Your task to perform on an android device: set an alarm Image 0: 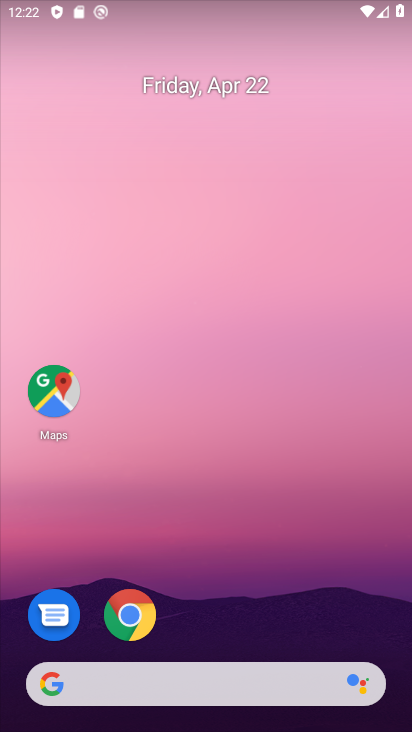
Step 0: drag from (394, 664) to (134, 726)
Your task to perform on an android device: set an alarm Image 1: 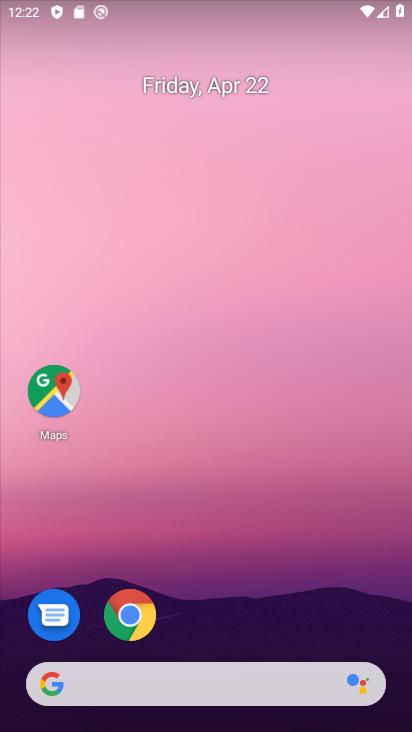
Step 1: drag from (200, 719) to (188, 22)
Your task to perform on an android device: set an alarm Image 2: 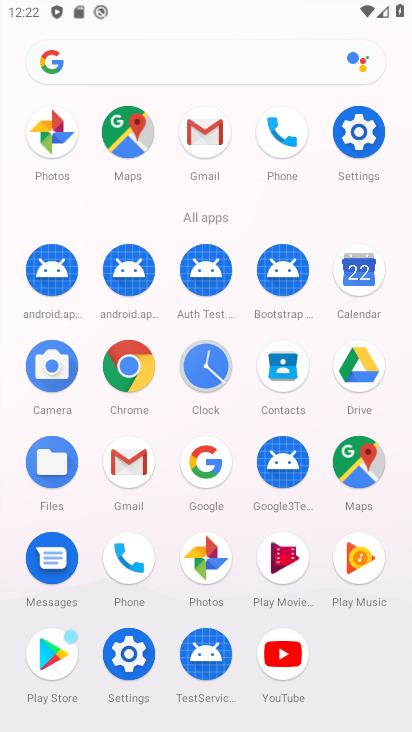
Step 2: click (219, 374)
Your task to perform on an android device: set an alarm Image 3: 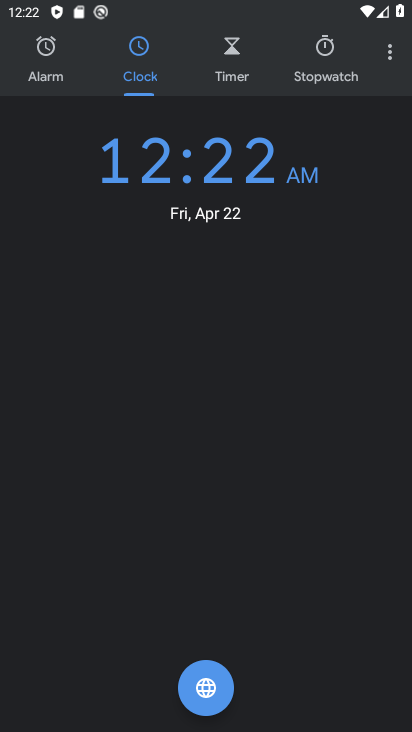
Step 3: click (54, 70)
Your task to perform on an android device: set an alarm Image 4: 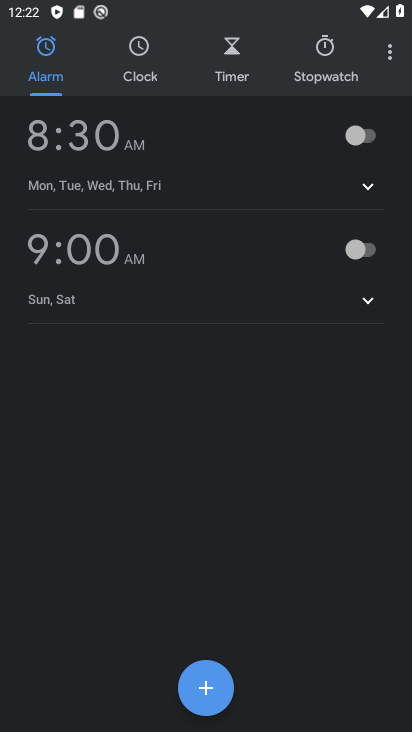
Step 4: click (210, 692)
Your task to perform on an android device: set an alarm Image 5: 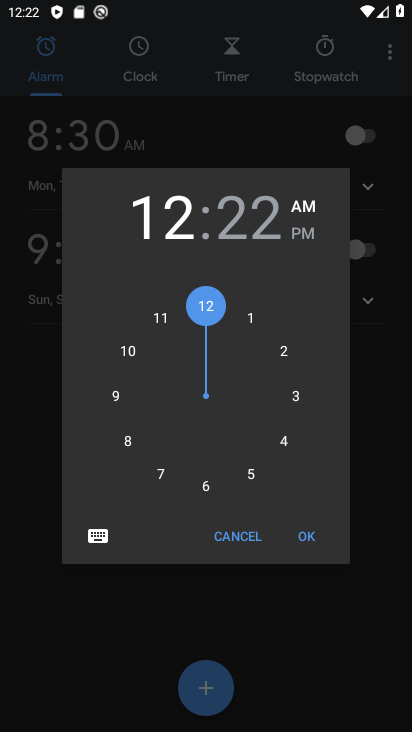
Step 5: click (312, 537)
Your task to perform on an android device: set an alarm Image 6: 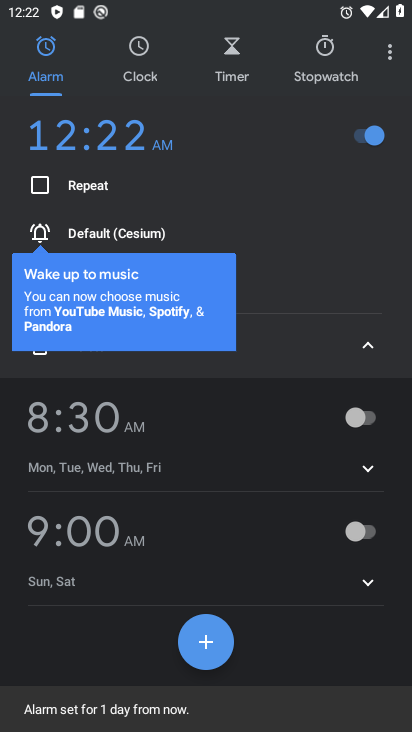
Step 6: task complete